Your task to perform on an android device: open app "Facebook Messenger" (install if not already installed), go to login, and select forgot password Image 0: 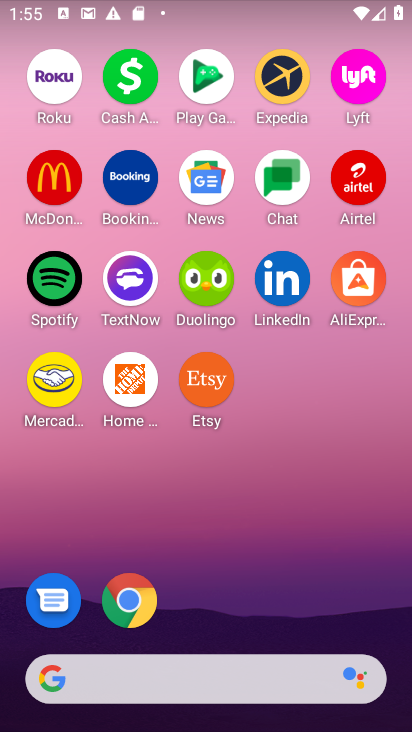
Step 0: drag from (302, 650) to (249, 100)
Your task to perform on an android device: open app "Facebook Messenger" (install if not already installed), go to login, and select forgot password Image 1: 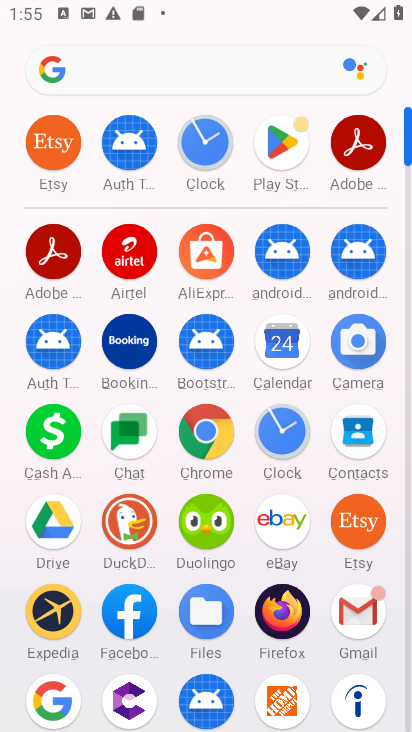
Step 1: click (269, 127)
Your task to perform on an android device: open app "Facebook Messenger" (install if not already installed), go to login, and select forgot password Image 2: 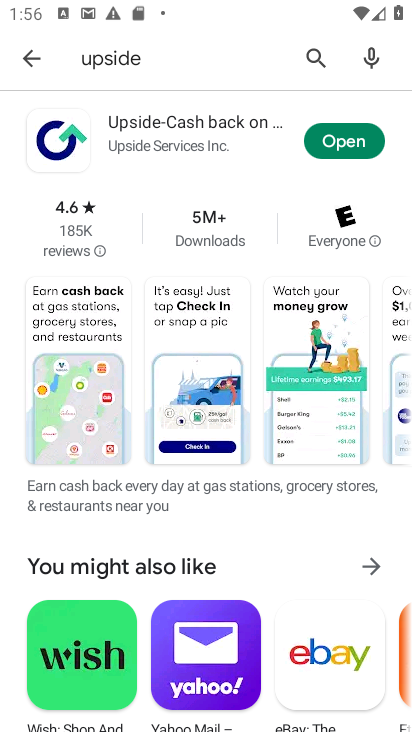
Step 2: click (381, 147)
Your task to perform on an android device: open app "Facebook Messenger" (install if not already installed), go to login, and select forgot password Image 3: 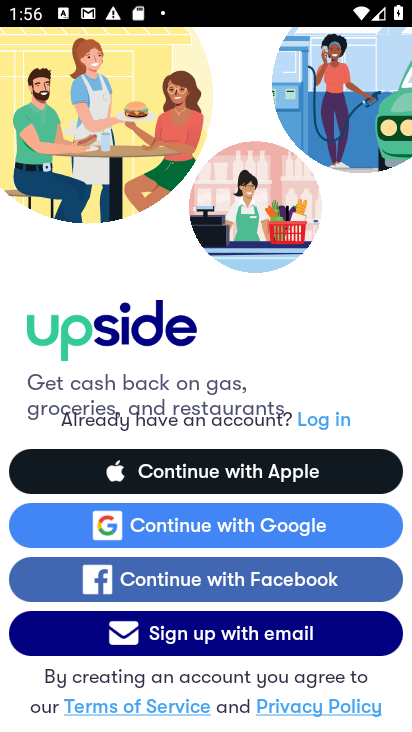
Step 3: task complete